Your task to perform on an android device: turn on airplane mode Image 0: 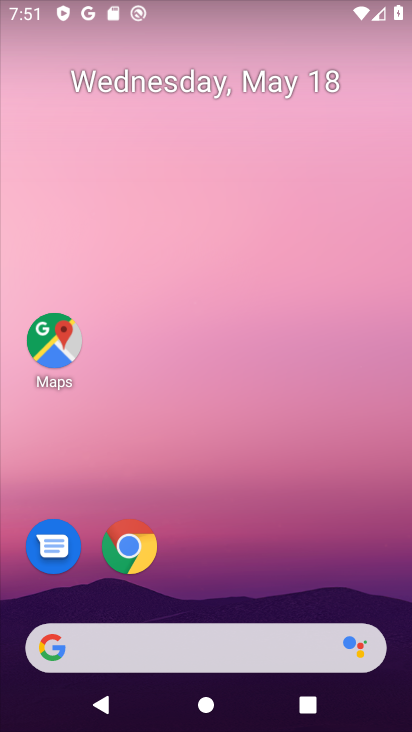
Step 0: drag from (321, 671) to (330, 63)
Your task to perform on an android device: turn on airplane mode Image 1: 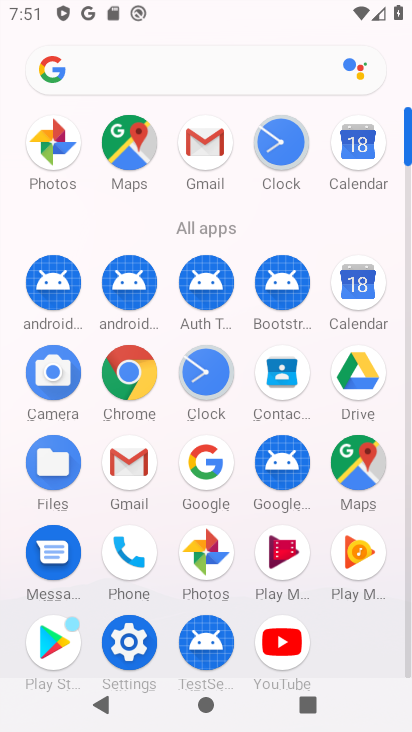
Step 1: click (140, 642)
Your task to perform on an android device: turn on airplane mode Image 2: 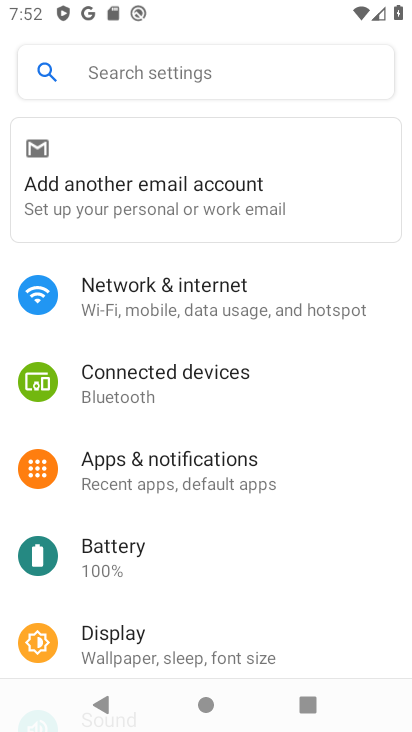
Step 2: drag from (314, 465) to (363, 187)
Your task to perform on an android device: turn on airplane mode Image 3: 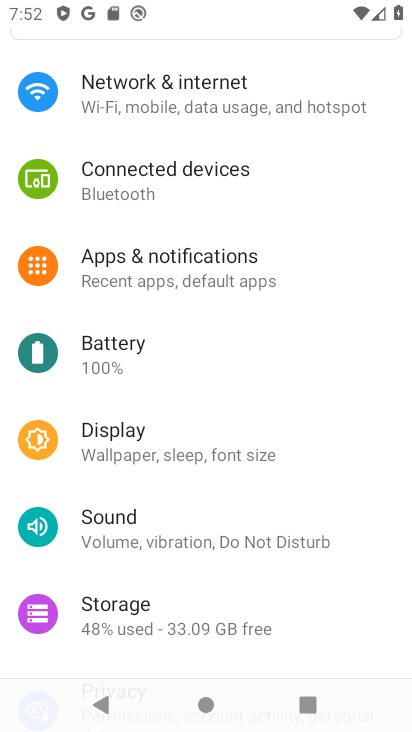
Step 3: click (275, 463)
Your task to perform on an android device: turn on airplane mode Image 4: 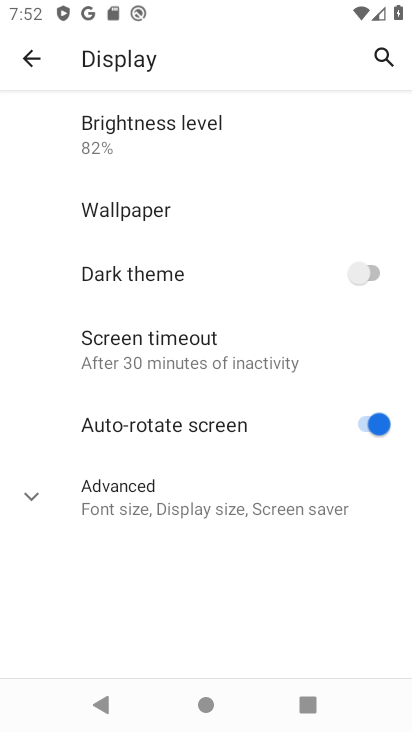
Step 4: task complete